Your task to perform on an android device: Show me popular games on the Play Store Image 0: 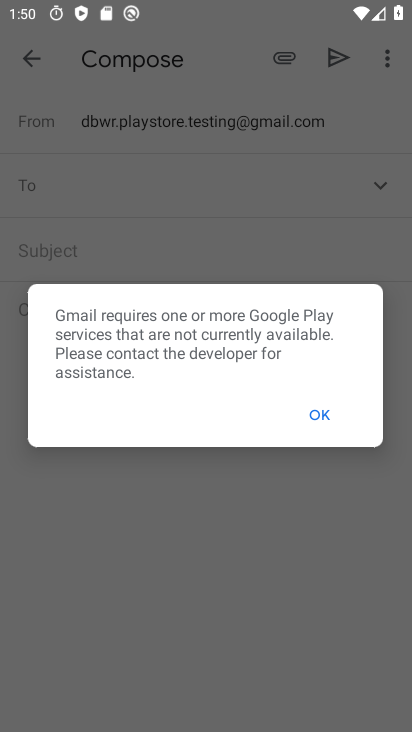
Step 0: click (321, 403)
Your task to perform on an android device: Show me popular games on the Play Store Image 1: 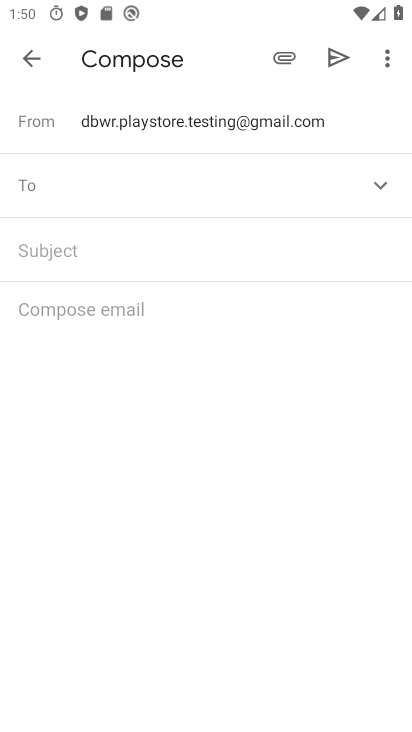
Step 1: press back button
Your task to perform on an android device: Show me popular games on the Play Store Image 2: 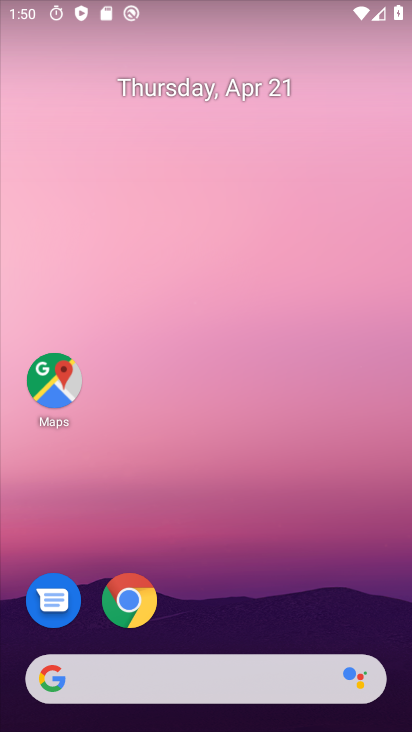
Step 2: drag from (270, 605) to (333, 105)
Your task to perform on an android device: Show me popular games on the Play Store Image 3: 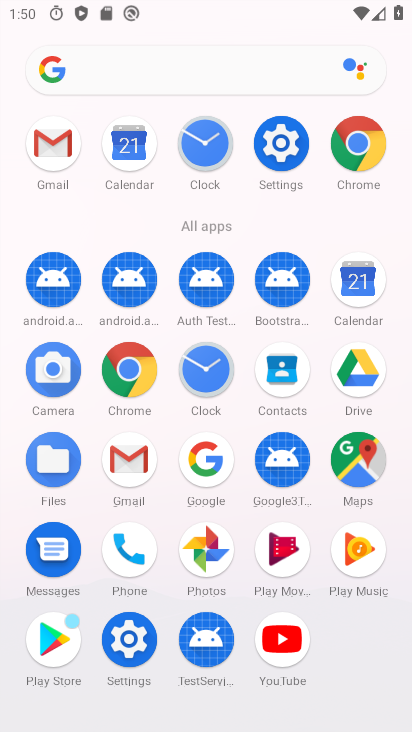
Step 3: click (60, 644)
Your task to perform on an android device: Show me popular games on the Play Store Image 4: 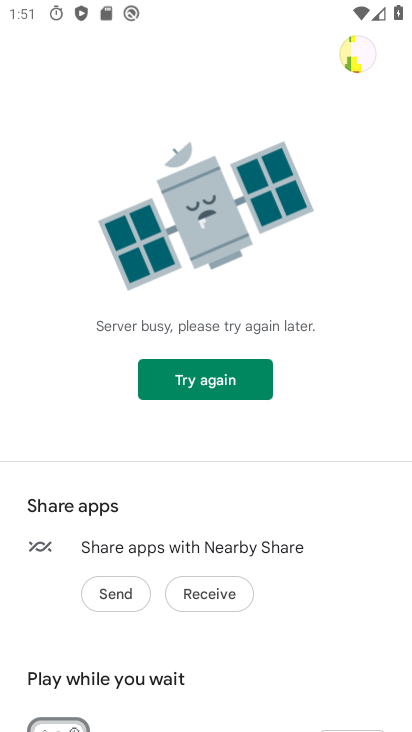
Step 4: click (195, 371)
Your task to perform on an android device: Show me popular games on the Play Store Image 5: 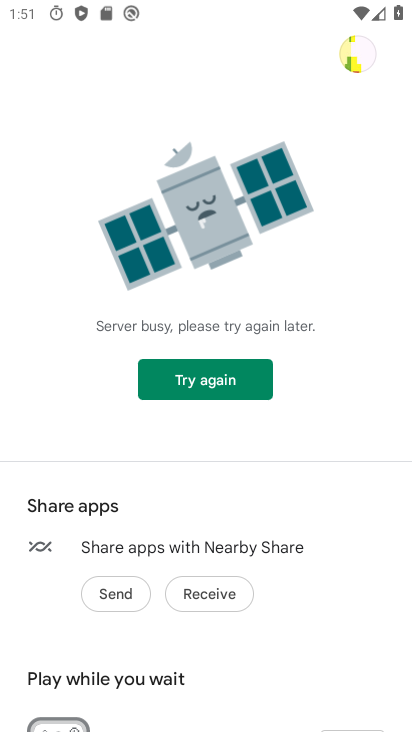
Step 5: task complete